Your task to perform on an android device: Go to eBay Image 0: 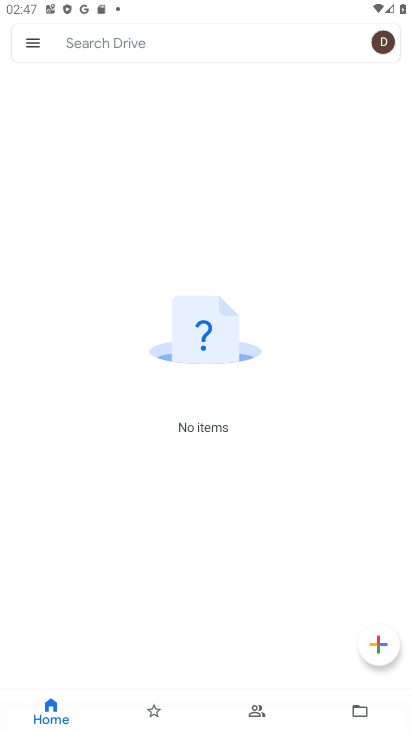
Step 0: press home button
Your task to perform on an android device: Go to eBay Image 1: 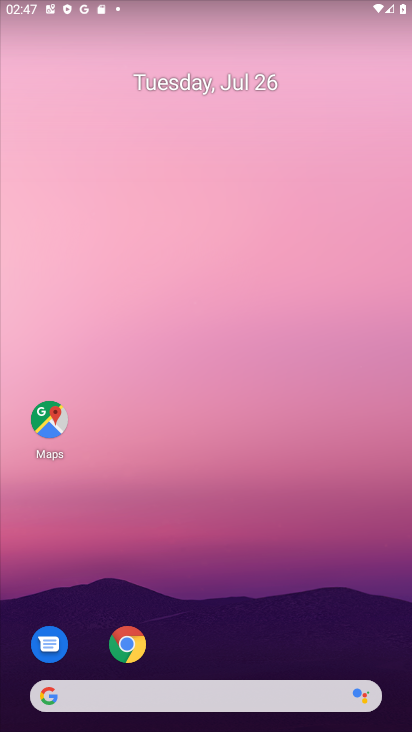
Step 1: click (130, 640)
Your task to perform on an android device: Go to eBay Image 2: 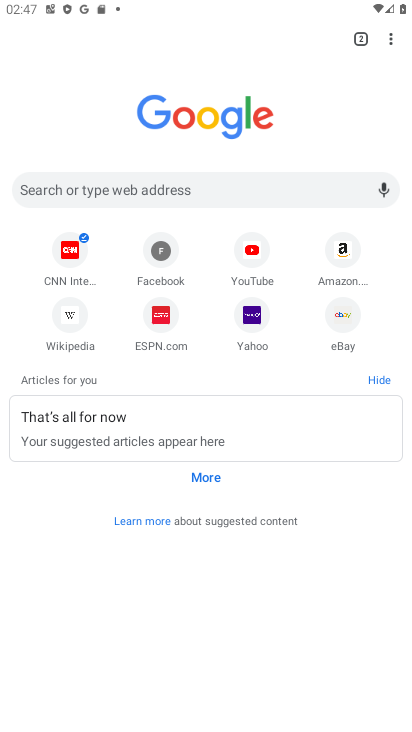
Step 2: click (329, 332)
Your task to perform on an android device: Go to eBay Image 3: 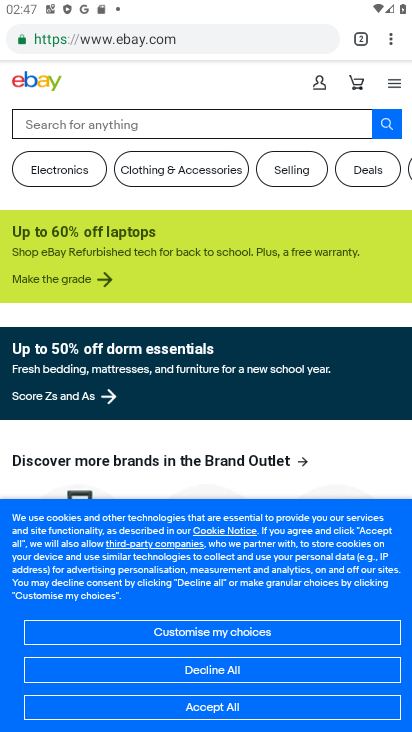
Step 3: task complete